Your task to perform on an android device: open a bookmark in the chrome app Image 0: 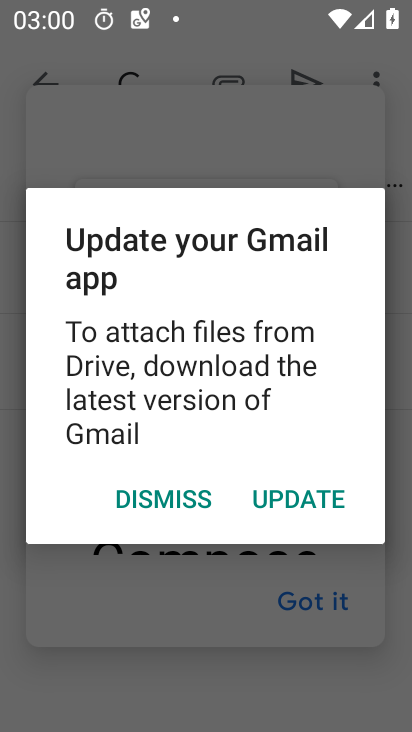
Step 0: press home button
Your task to perform on an android device: open a bookmark in the chrome app Image 1: 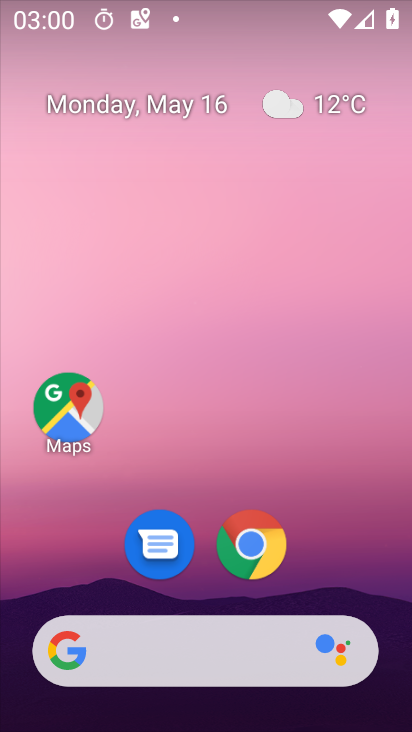
Step 1: click (256, 546)
Your task to perform on an android device: open a bookmark in the chrome app Image 2: 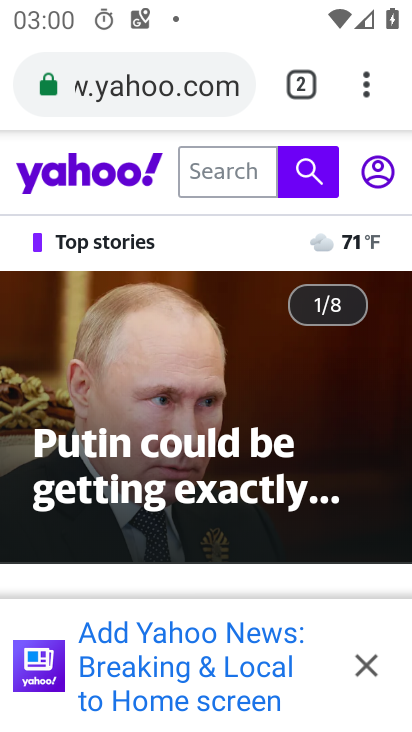
Step 2: click (369, 94)
Your task to perform on an android device: open a bookmark in the chrome app Image 3: 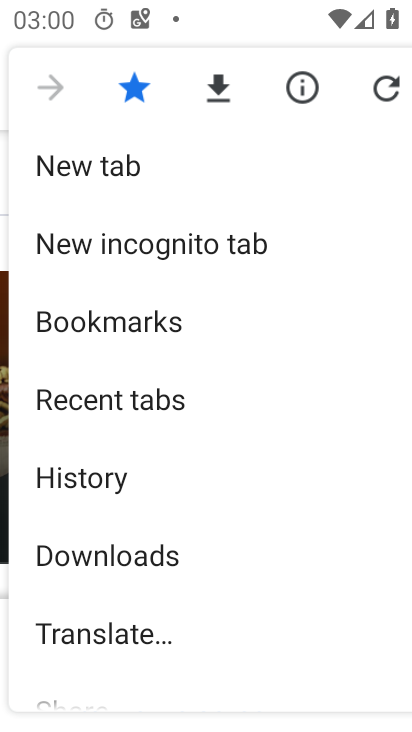
Step 3: click (100, 324)
Your task to perform on an android device: open a bookmark in the chrome app Image 4: 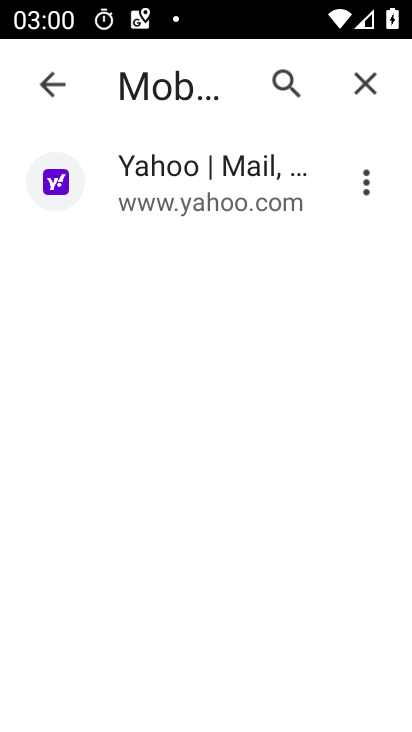
Step 4: click (161, 169)
Your task to perform on an android device: open a bookmark in the chrome app Image 5: 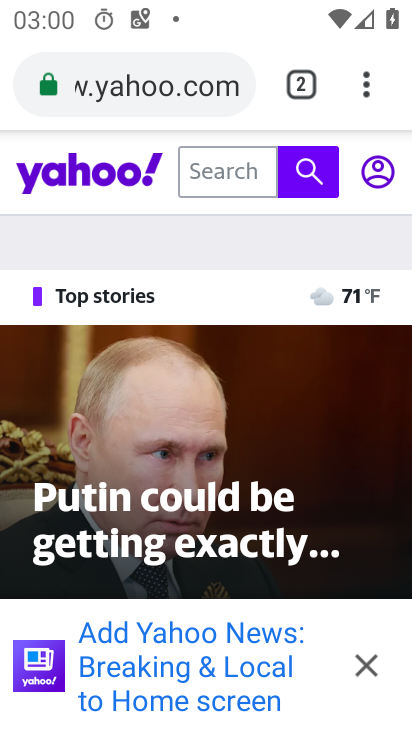
Step 5: task complete